Your task to perform on an android device: Open the phone app and click the voicemail tab. Image 0: 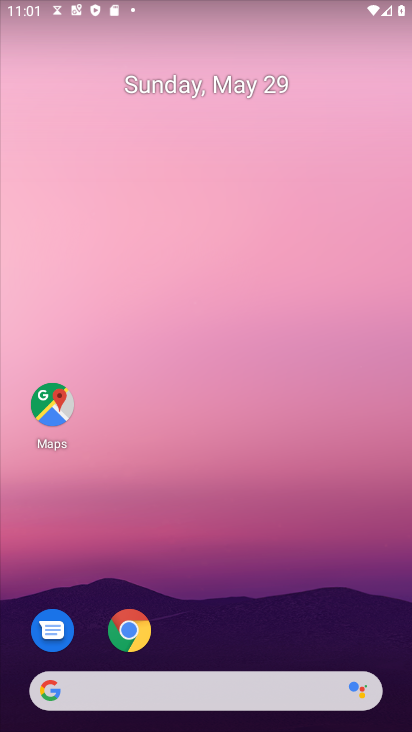
Step 0: drag from (274, 596) to (342, 58)
Your task to perform on an android device: Open the phone app and click the voicemail tab. Image 1: 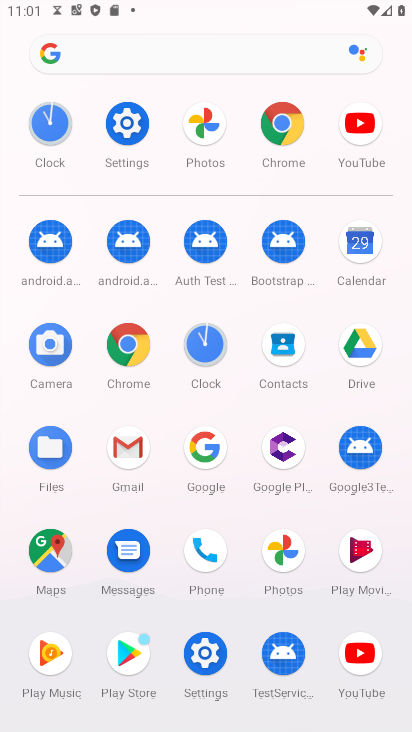
Step 1: click (201, 559)
Your task to perform on an android device: Open the phone app and click the voicemail tab. Image 2: 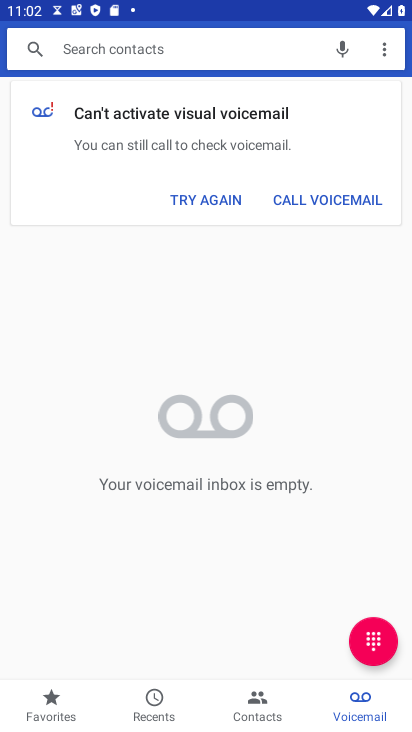
Step 2: click (349, 692)
Your task to perform on an android device: Open the phone app and click the voicemail tab. Image 3: 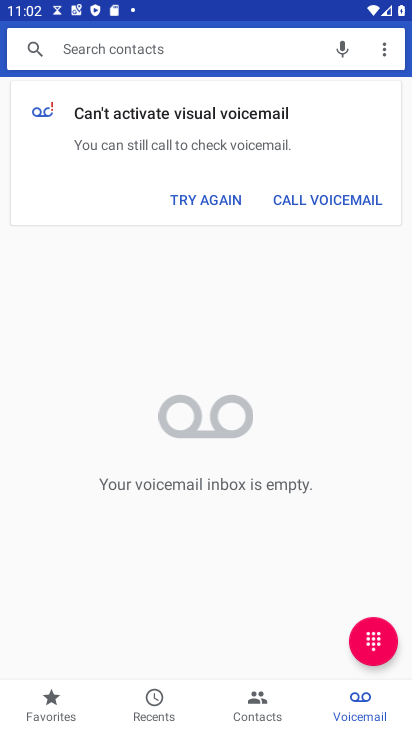
Step 3: task complete